Your task to perform on an android device: Open the map Image 0: 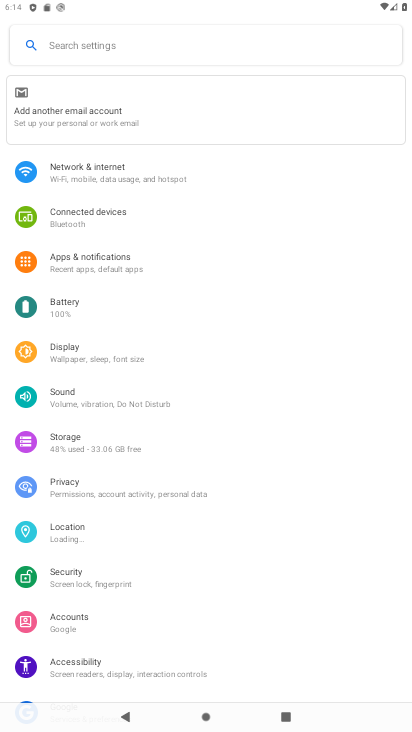
Step 0: press home button
Your task to perform on an android device: Open the map Image 1: 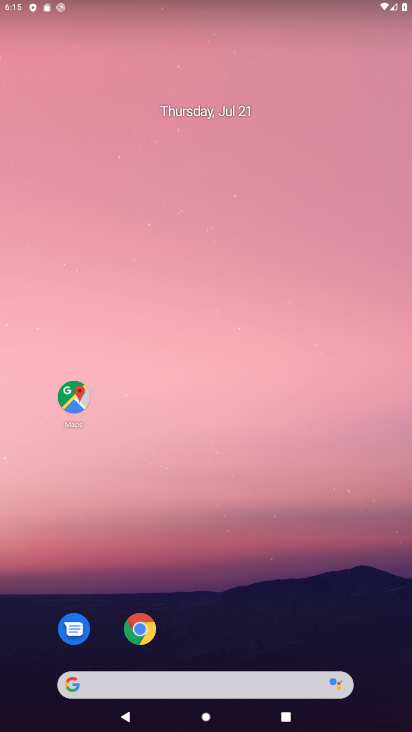
Step 1: click (74, 400)
Your task to perform on an android device: Open the map Image 2: 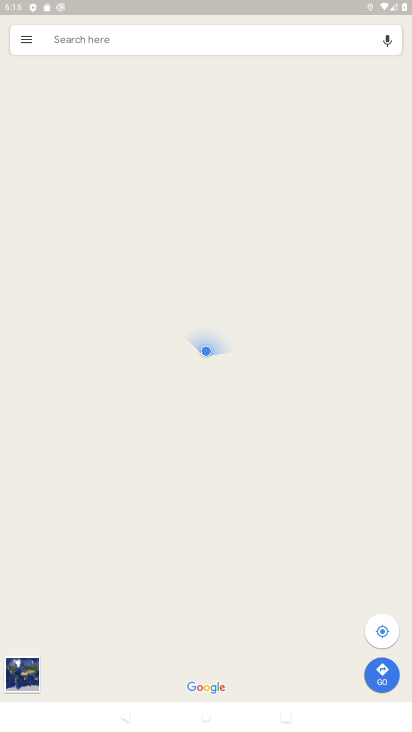
Step 2: task complete